Your task to perform on an android device: Do I have any events today? Image 0: 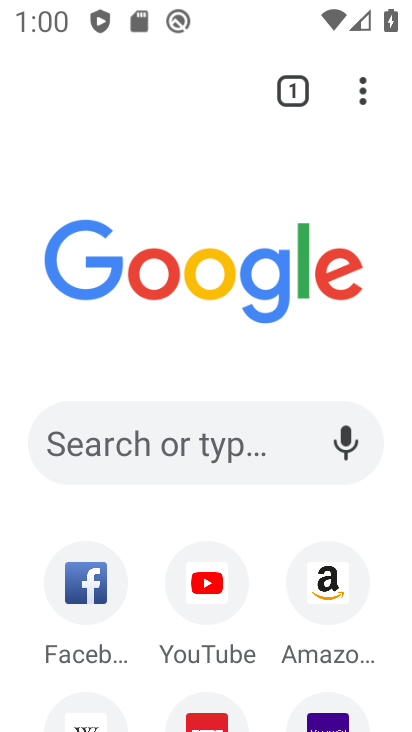
Step 0: press home button
Your task to perform on an android device: Do I have any events today? Image 1: 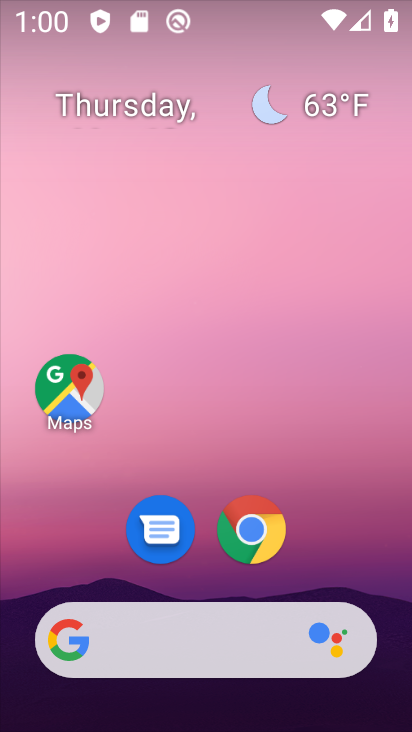
Step 1: drag from (347, 536) to (243, 73)
Your task to perform on an android device: Do I have any events today? Image 2: 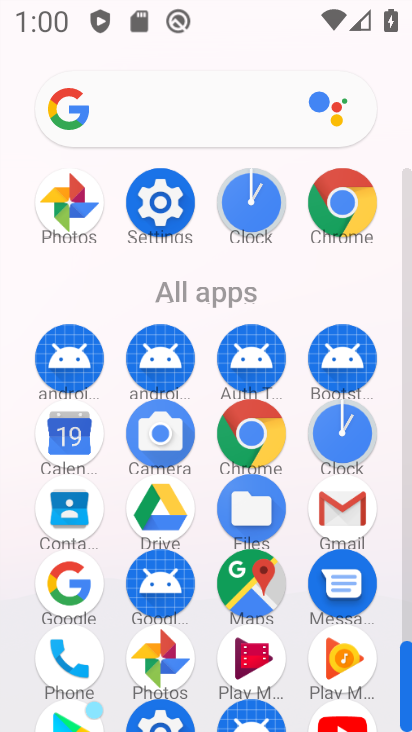
Step 2: drag from (202, 555) to (220, 289)
Your task to perform on an android device: Do I have any events today? Image 3: 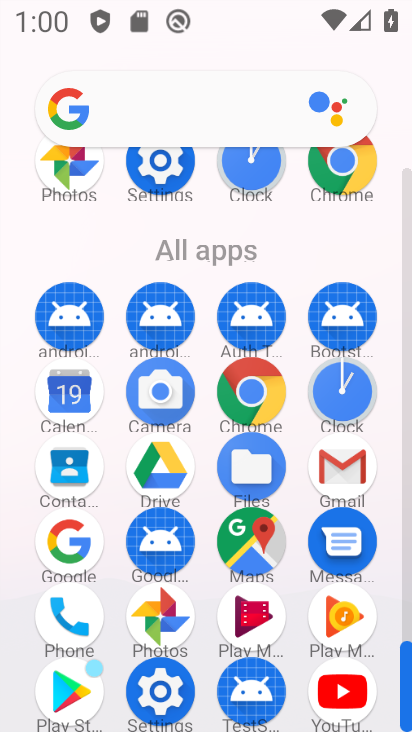
Step 3: click (74, 396)
Your task to perform on an android device: Do I have any events today? Image 4: 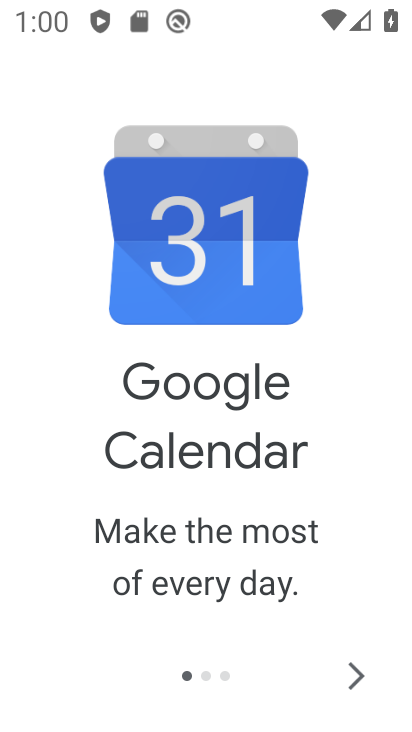
Step 4: click (357, 673)
Your task to perform on an android device: Do I have any events today? Image 5: 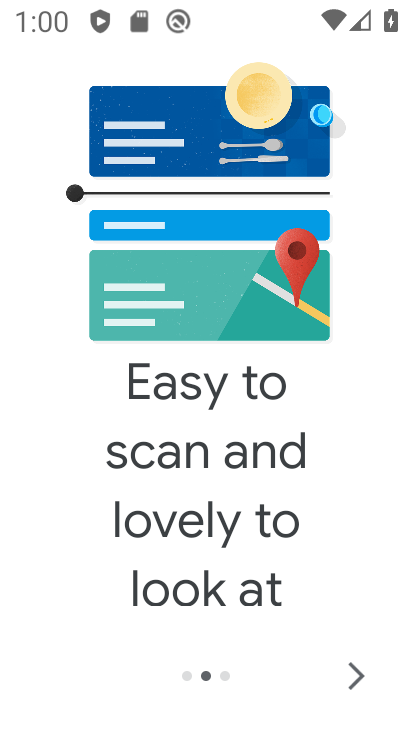
Step 5: click (357, 673)
Your task to perform on an android device: Do I have any events today? Image 6: 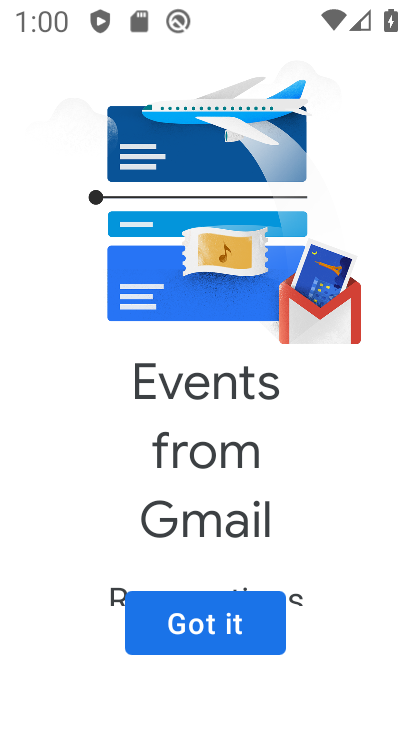
Step 6: click (195, 623)
Your task to perform on an android device: Do I have any events today? Image 7: 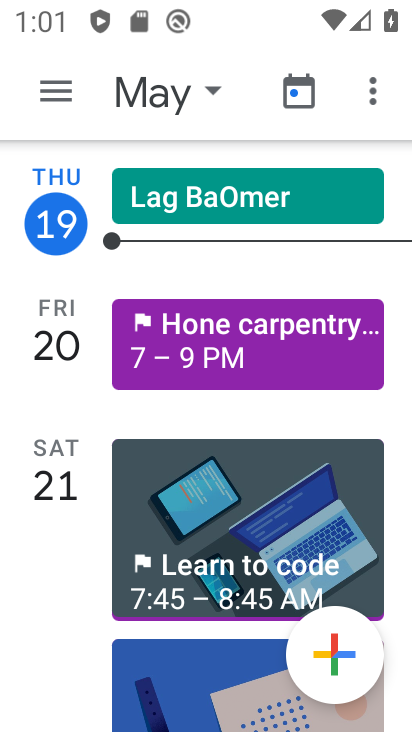
Step 7: click (320, 183)
Your task to perform on an android device: Do I have any events today? Image 8: 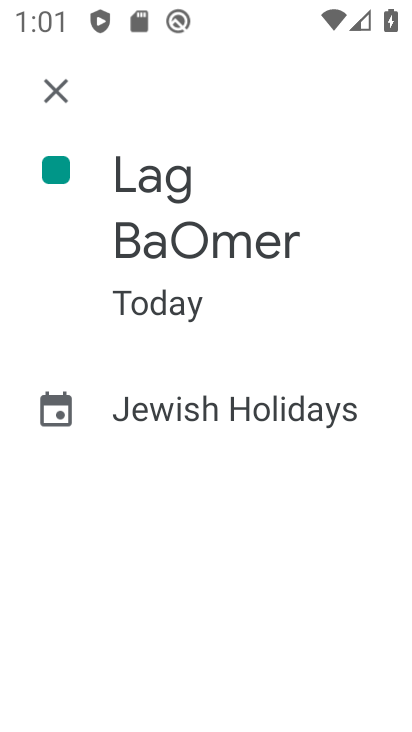
Step 8: task complete